Your task to perform on an android device: Show me the alarms in the clock app Image 0: 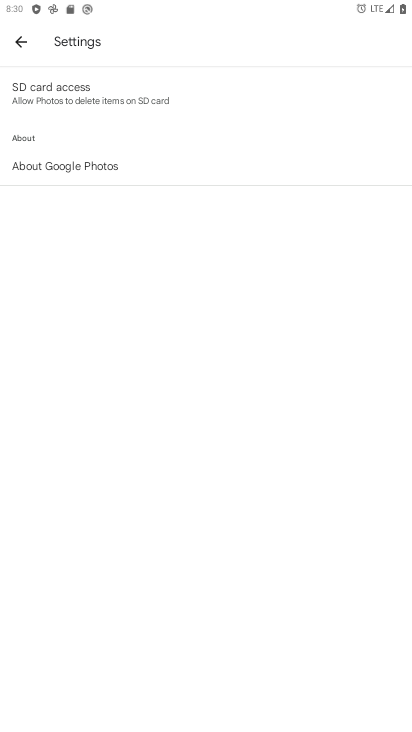
Step 0: click (14, 39)
Your task to perform on an android device: Show me the alarms in the clock app Image 1: 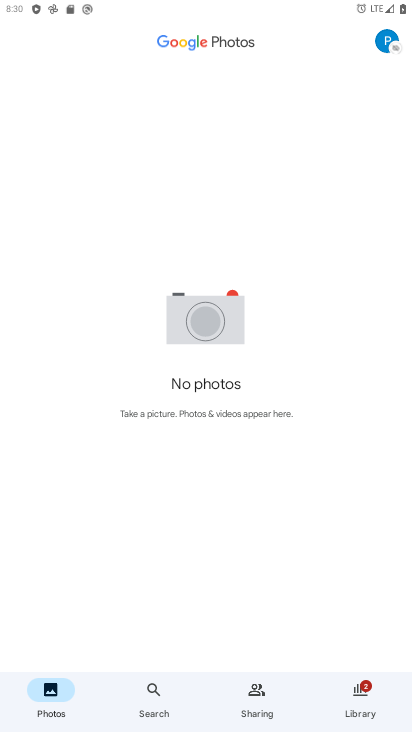
Step 1: press back button
Your task to perform on an android device: Show me the alarms in the clock app Image 2: 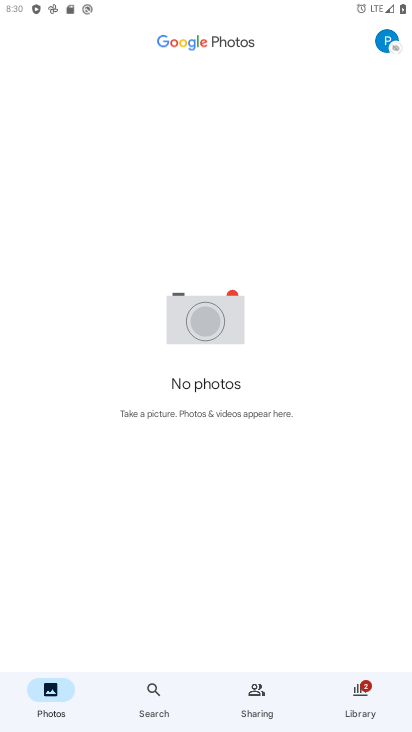
Step 2: press back button
Your task to perform on an android device: Show me the alarms in the clock app Image 3: 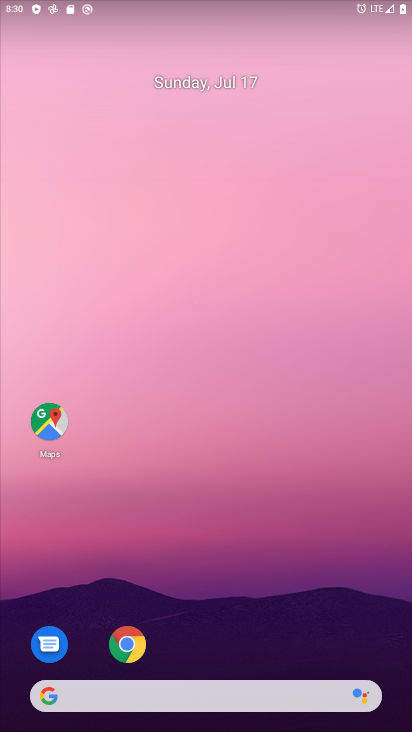
Step 3: drag from (244, 603) to (192, 200)
Your task to perform on an android device: Show me the alarms in the clock app Image 4: 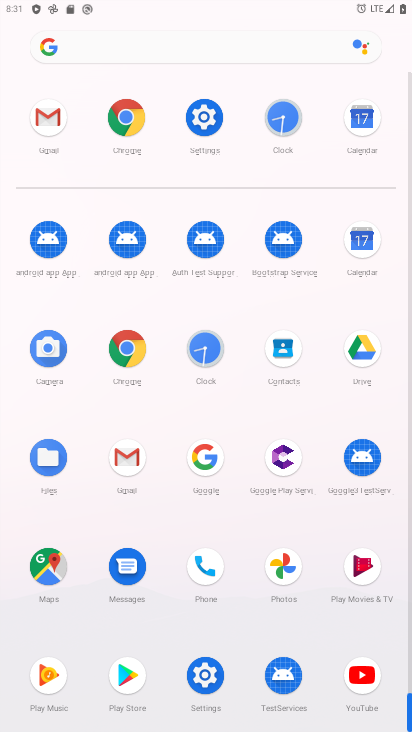
Step 4: click (203, 348)
Your task to perform on an android device: Show me the alarms in the clock app Image 5: 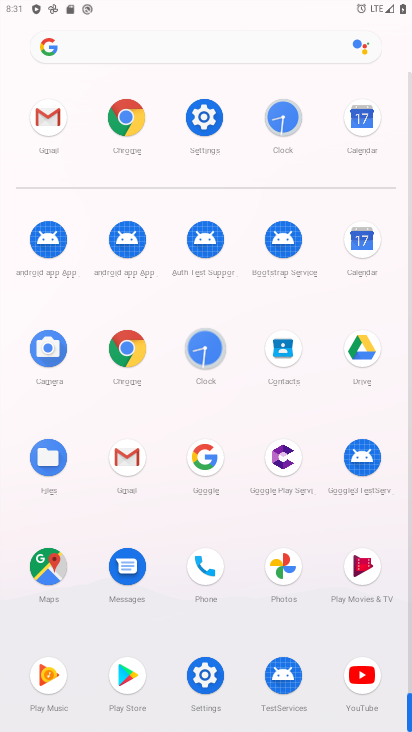
Step 5: click (191, 341)
Your task to perform on an android device: Show me the alarms in the clock app Image 6: 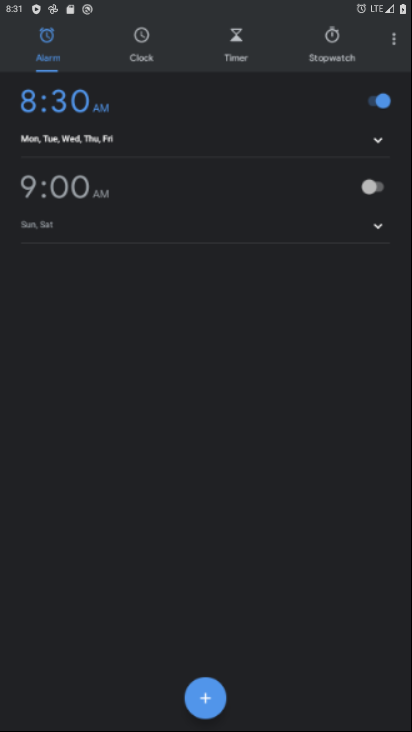
Step 6: click (196, 347)
Your task to perform on an android device: Show me the alarms in the clock app Image 7: 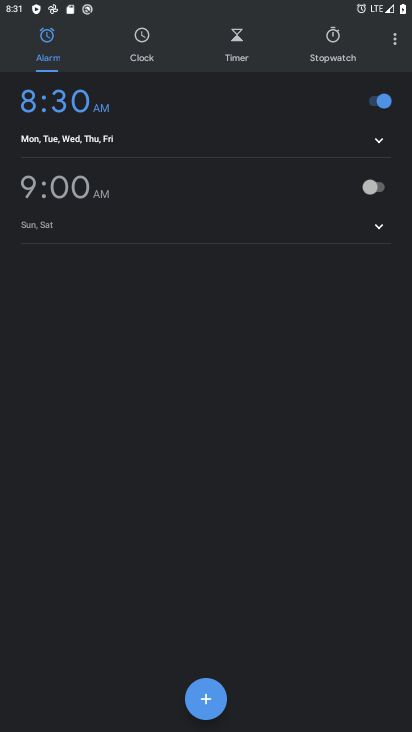
Step 7: task complete